Your task to perform on an android device: change notifications settings Image 0: 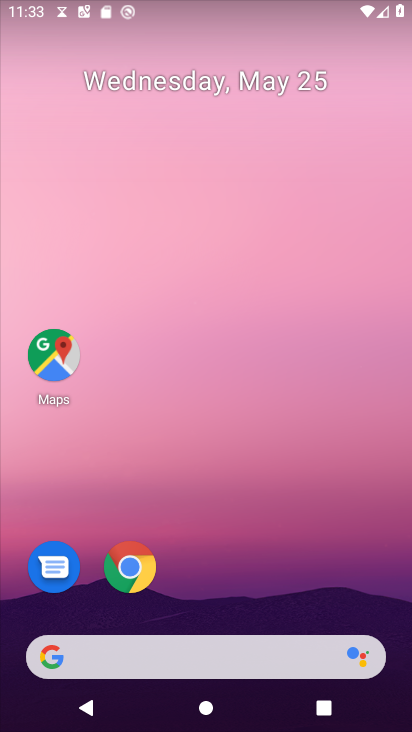
Step 0: drag from (294, 575) to (303, 14)
Your task to perform on an android device: change notifications settings Image 1: 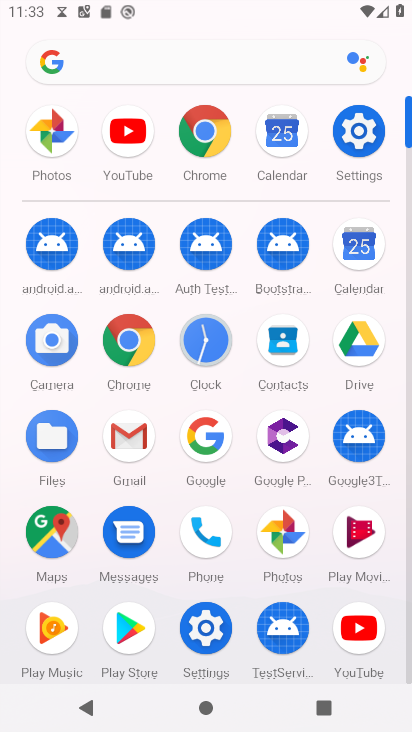
Step 1: click (360, 136)
Your task to perform on an android device: change notifications settings Image 2: 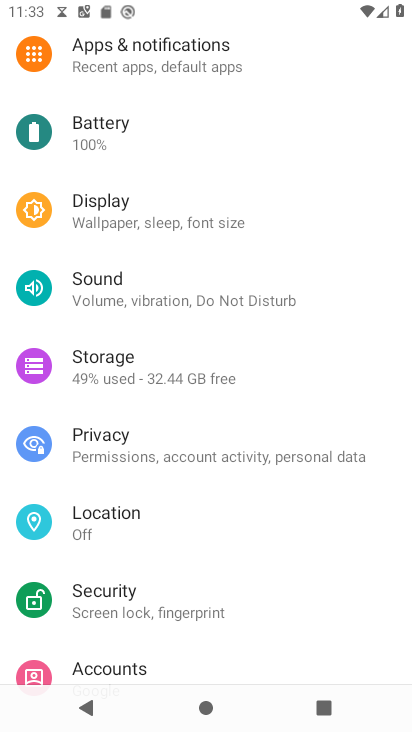
Step 2: click (164, 64)
Your task to perform on an android device: change notifications settings Image 3: 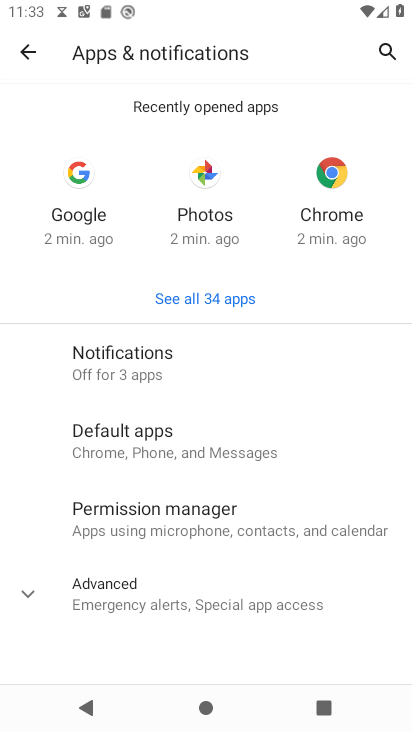
Step 3: click (180, 605)
Your task to perform on an android device: change notifications settings Image 4: 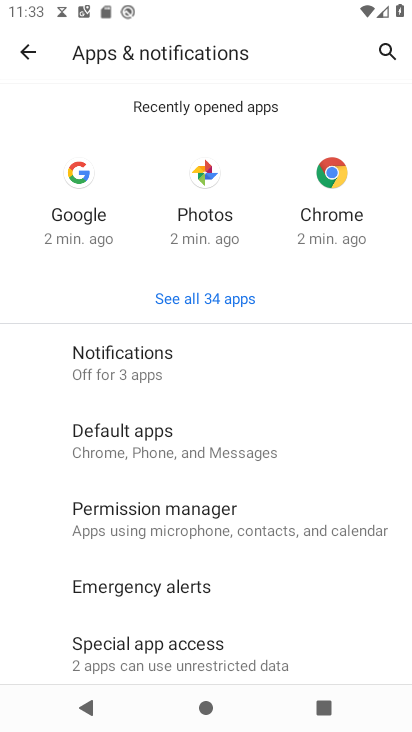
Step 4: click (283, 356)
Your task to perform on an android device: change notifications settings Image 5: 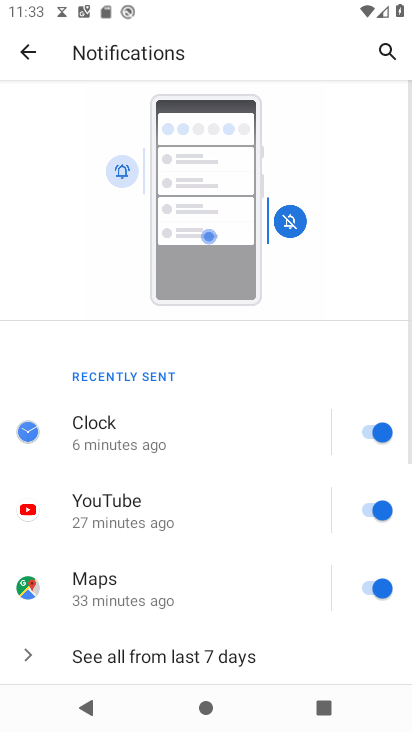
Step 5: drag from (284, 579) to (308, 83)
Your task to perform on an android device: change notifications settings Image 6: 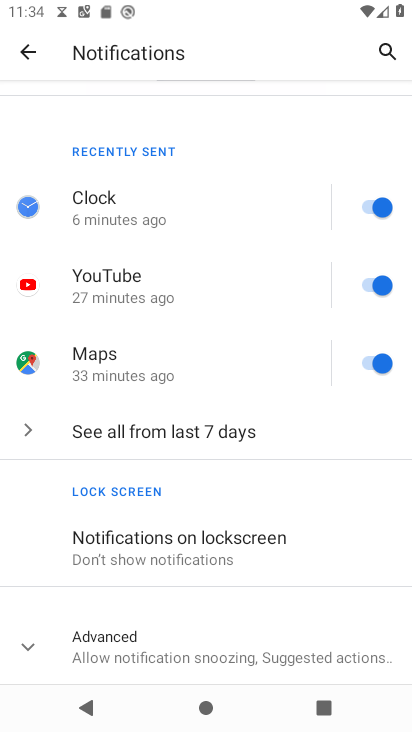
Step 6: click (154, 561)
Your task to perform on an android device: change notifications settings Image 7: 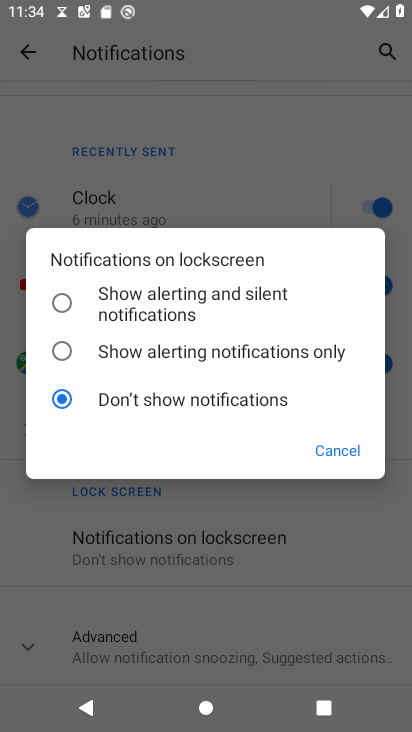
Step 7: click (66, 301)
Your task to perform on an android device: change notifications settings Image 8: 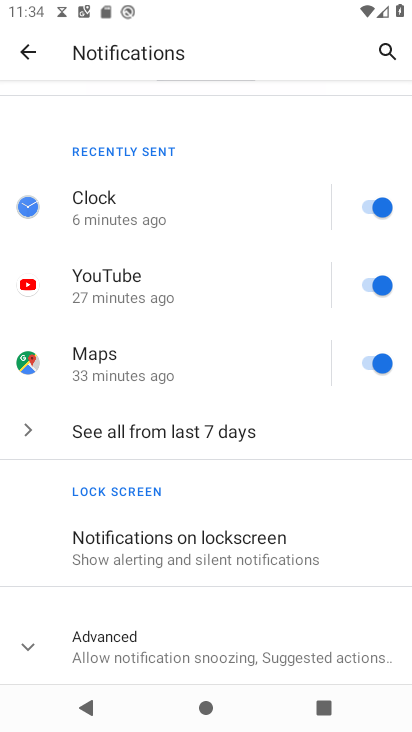
Step 8: task complete